Your task to perform on an android device: When is my next appointment? Image 0: 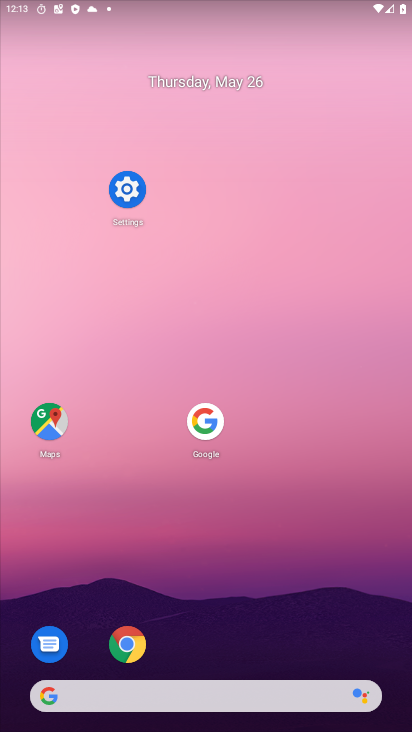
Step 0: drag from (217, 627) to (232, 126)
Your task to perform on an android device: When is my next appointment? Image 1: 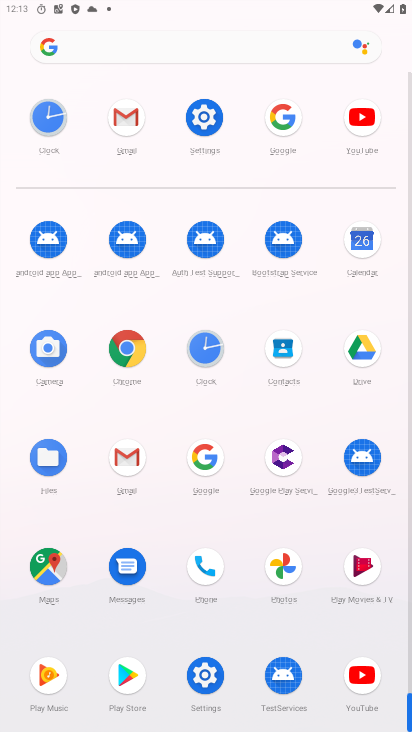
Step 1: click (362, 238)
Your task to perform on an android device: When is my next appointment? Image 2: 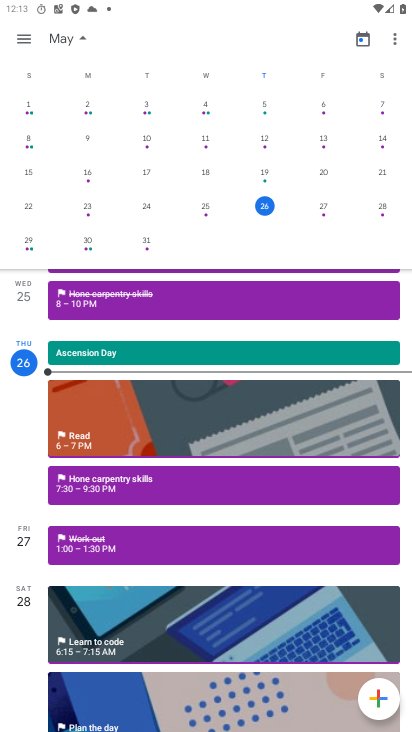
Step 2: drag from (364, 235) to (52, 225)
Your task to perform on an android device: When is my next appointment? Image 3: 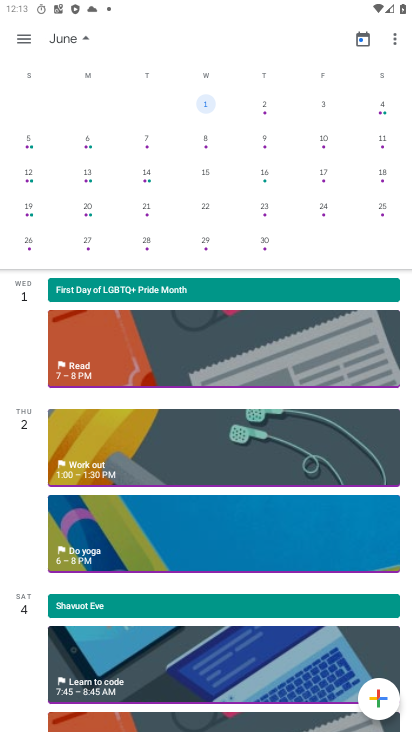
Step 3: drag from (52, 225) to (367, 251)
Your task to perform on an android device: When is my next appointment? Image 4: 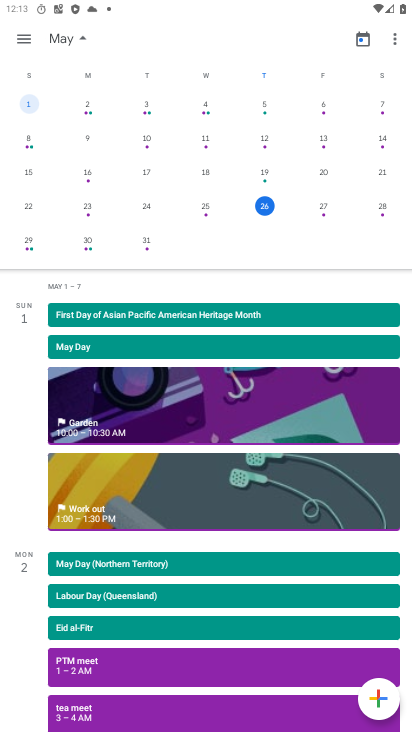
Step 4: click (324, 203)
Your task to perform on an android device: When is my next appointment? Image 5: 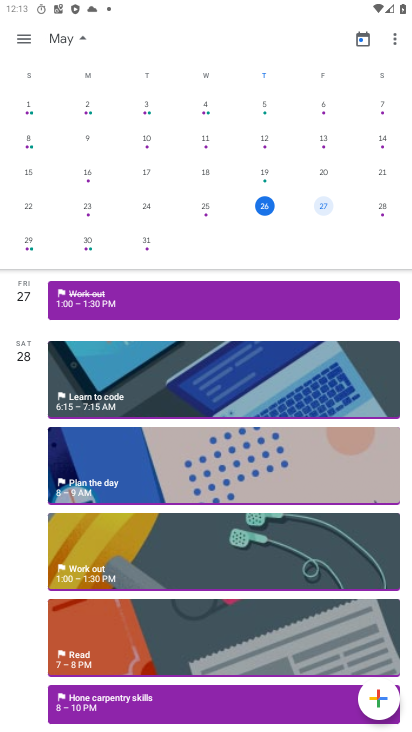
Step 5: task complete